Your task to perform on an android device: toggle notifications settings in the gmail app Image 0: 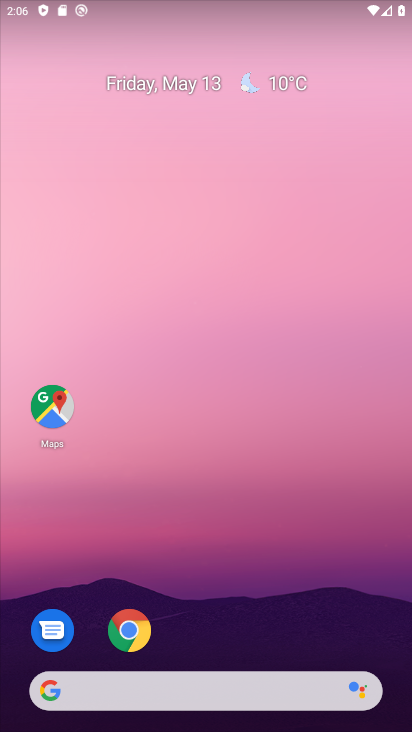
Step 0: press home button
Your task to perform on an android device: toggle notifications settings in the gmail app Image 1: 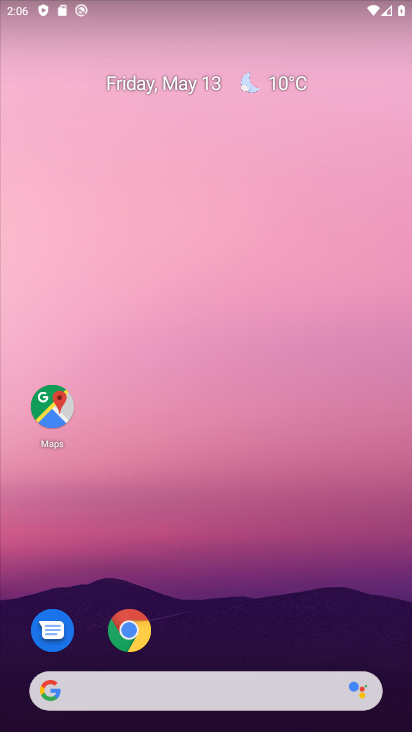
Step 1: drag from (219, 648) to (225, 184)
Your task to perform on an android device: toggle notifications settings in the gmail app Image 2: 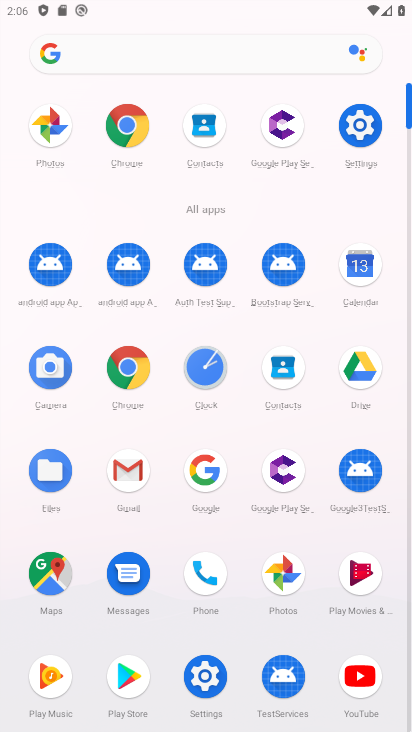
Step 2: click (125, 463)
Your task to perform on an android device: toggle notifications settings in the gmail app Image 3: 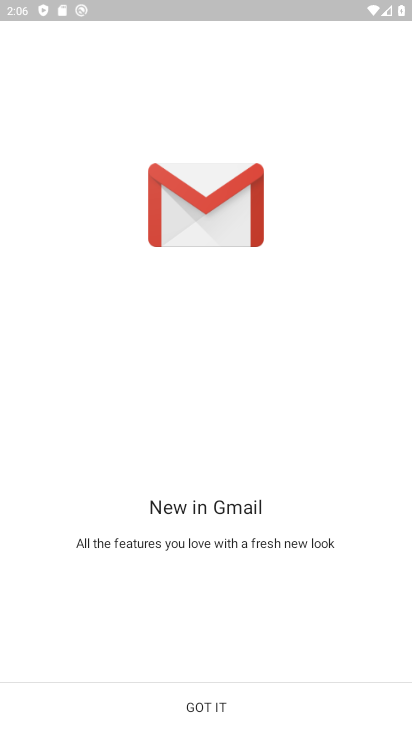
Step 3: click (208, 706)
Your task to perform on an android device: toggle notifications settings in the gmail app Image 4: 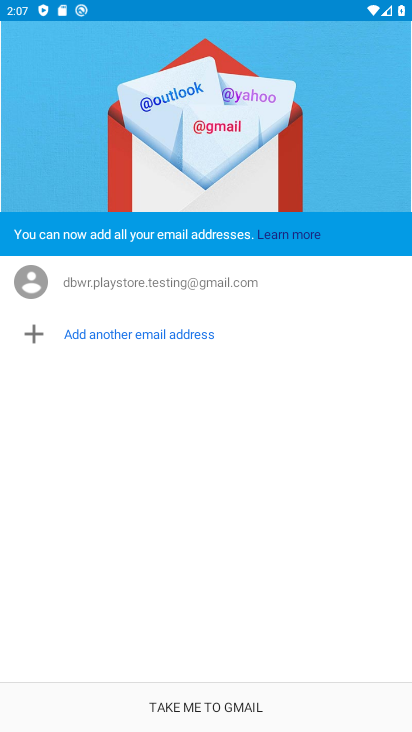
Step 4: click (215, 710)
Your task to perform on an android device: toggle notifications settings in the gmail app Image 5: 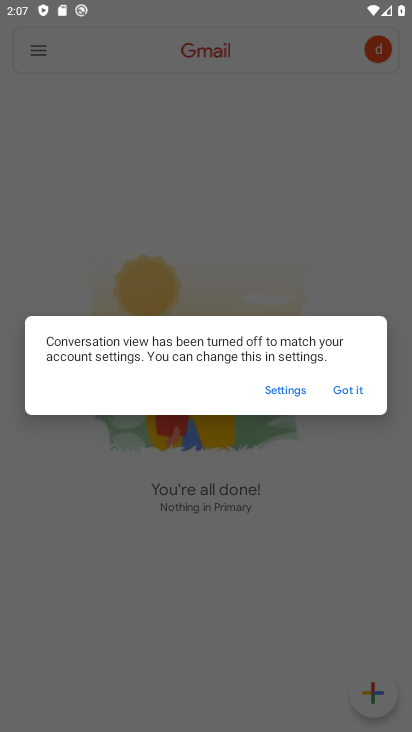
Step 5: click (349, 391)
Your task to perform on an android device: toggle notifications settings in the gmail app Image 6: 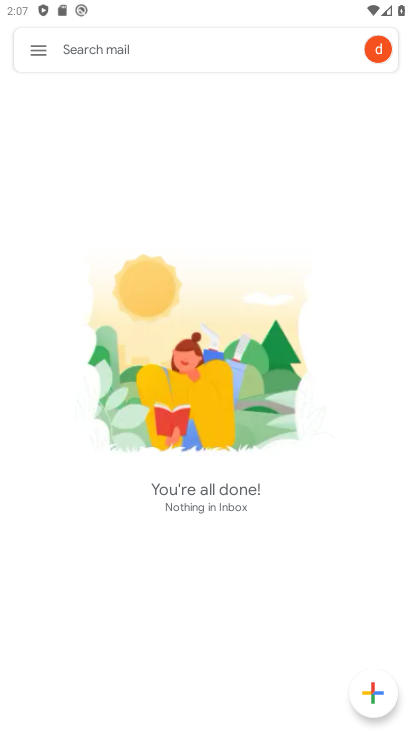
Step 6: click (33, 45)
Your task to perform on an android device: toggle notifications settings in the gmail app Image 7: 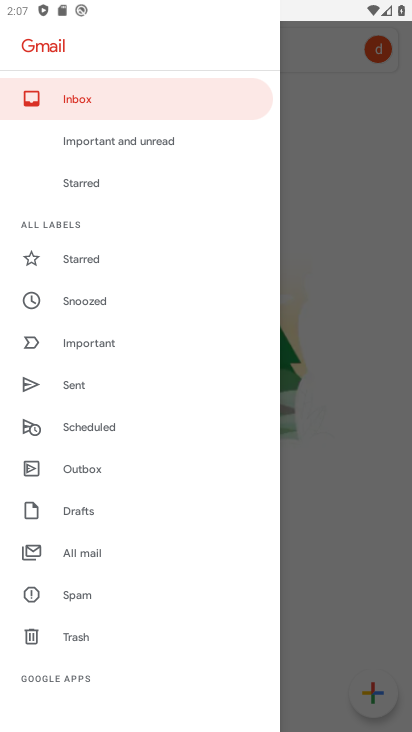
Step 7: drag from (74, 615) to (90, 96)
Your task to perform on an android device: toggle notifications settings in the gmail app Image 8: 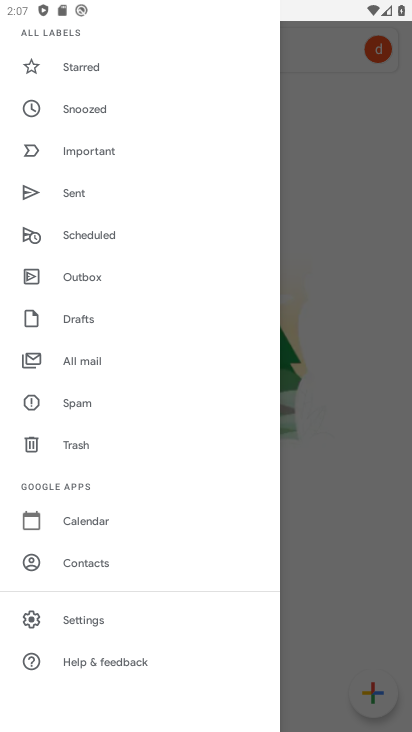
Step 8: click (50, 615)
Your task to perform on an android device: toggle notifications settings in the gmail app Image 9: 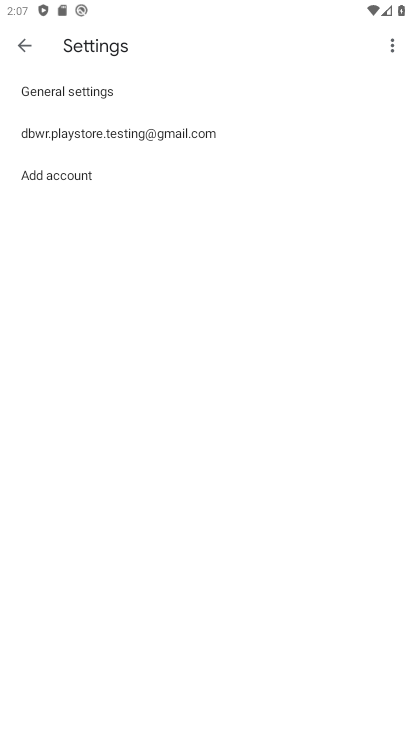
Step 9: click (126, 82)
Your task to perform on an android device: toggle notifications settings in the gmail app Image 10: 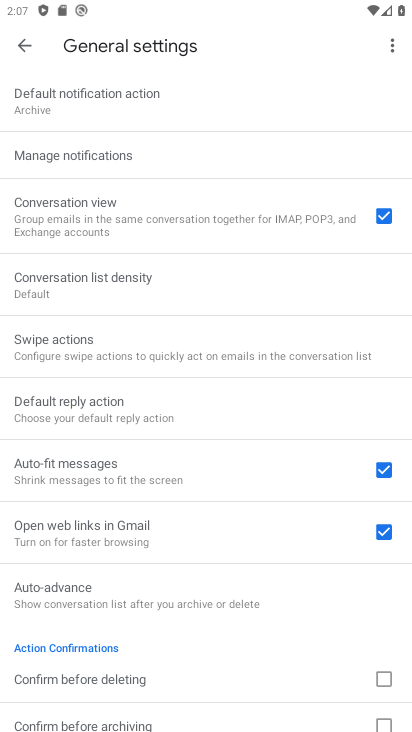
Step 10: click (150, 146)
Your task to perform on an android device: toggle notifications settings in the gmail app Image 11: 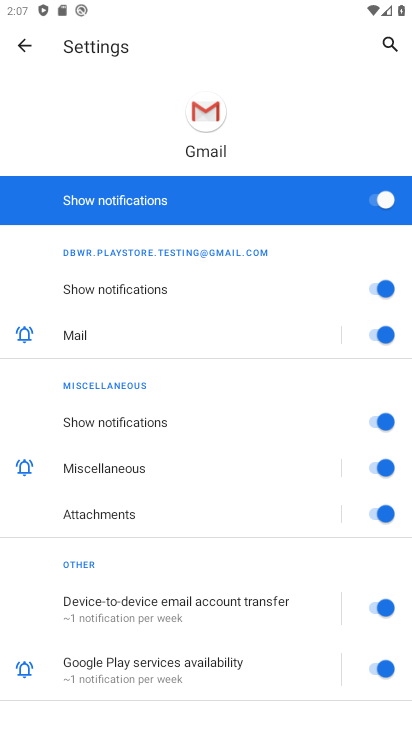
Step 11: click (378, 196)
Your task to perform on an android device: toggle notifications settings in the gmail app Image 12: 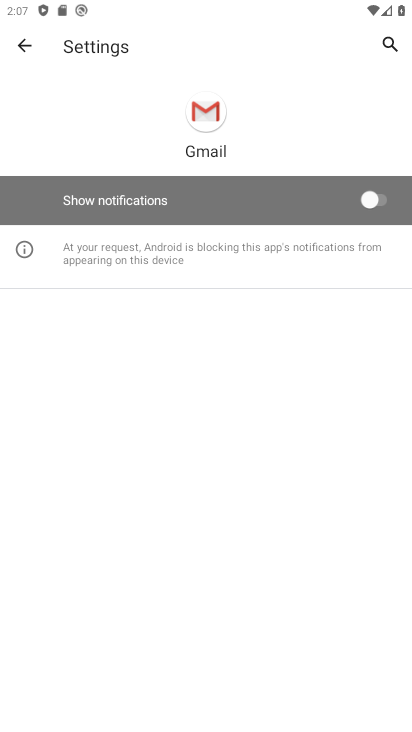
Step 12: task complete